Your task to perform on an android device: stop showing notifications on the lock screen Image 0: 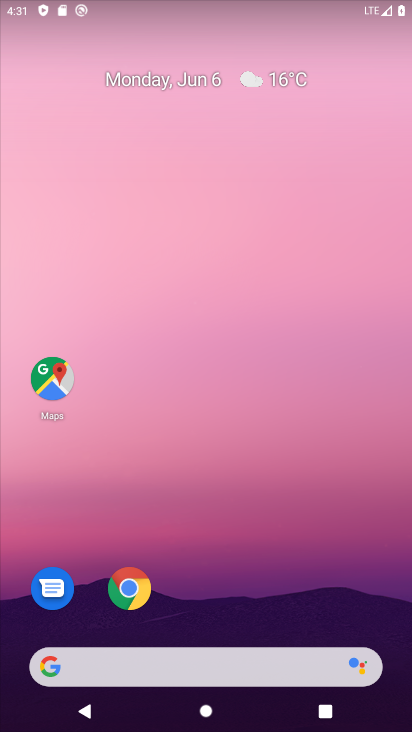
Step 0: drag from (256, 134) to (163, 209)
Your task to perform on an android device: stop showing notifications on the lock screen Image 1: 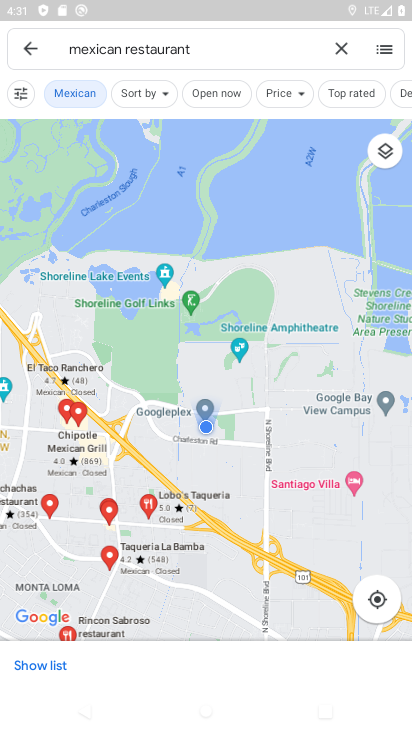
Step 1: press back button
Your task to perform on an android device: stop showing notifications on the lock screen Image 2: 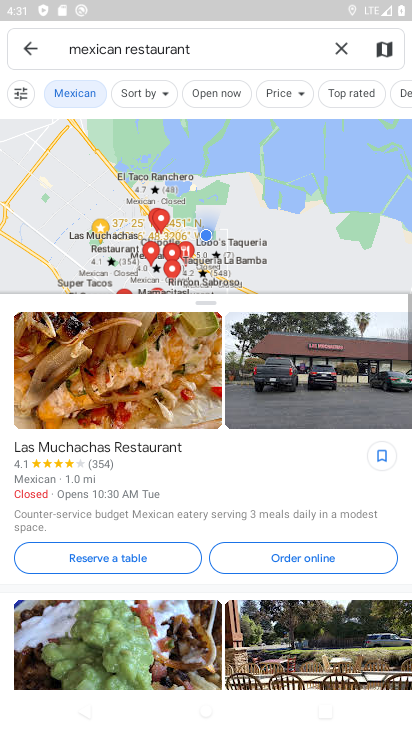
Step 2: click (33, 54)
Your task to perform on an android device: stop showing notifications on the lock screen Image 3: 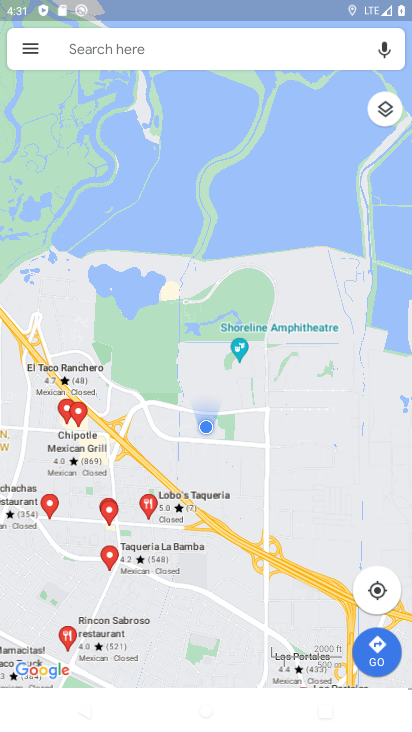
Step 3: press home button
Your task to perform on an android device: stop showing notifications on the lock screen Image 4: 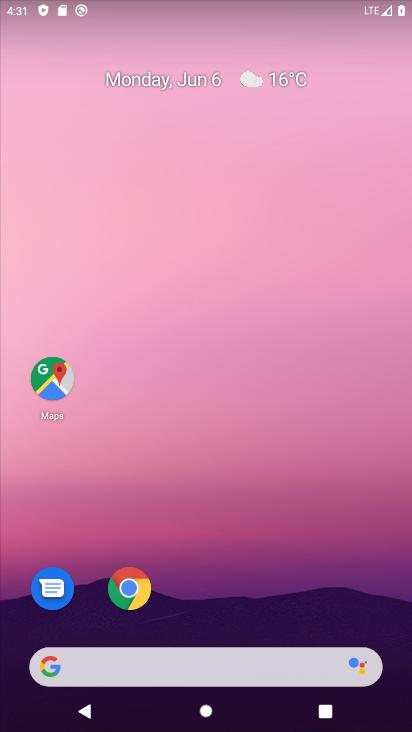
Step 4: drag from (289, 702) to (213, 142)
Your task to perform on an android device: stop showing notifications on the lock screen Image 5: 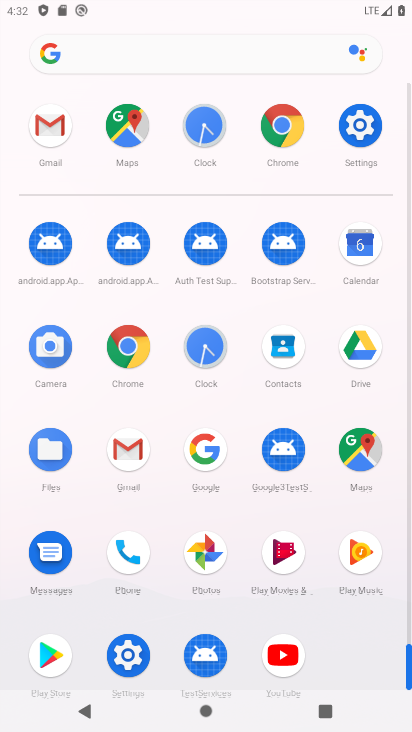
Step 5: click (362, 138)
Your task to perform on an android device: stop showing notifications on the lock screen Image 6: 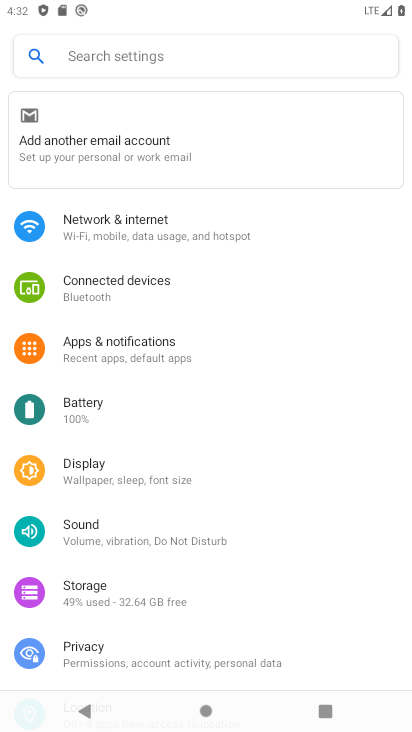
Step 6: click (99, 329)
Your task to perform on an android device: stop showing notifications on the lock screen Image 7: 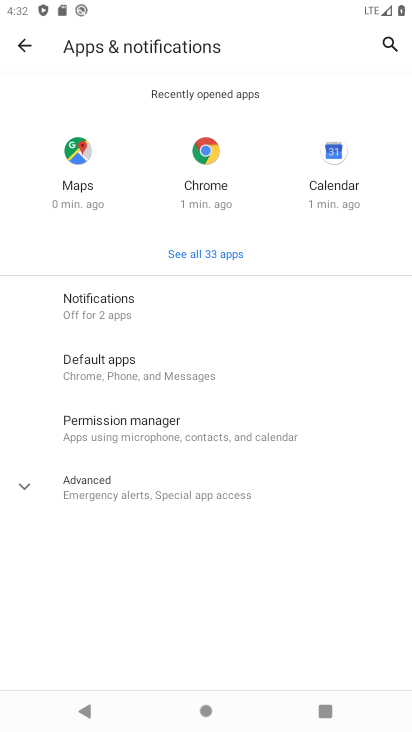
Step 7: click (104, 303)
Your task to perform on an android device: stop showing notifications on the lock screen Image 8: 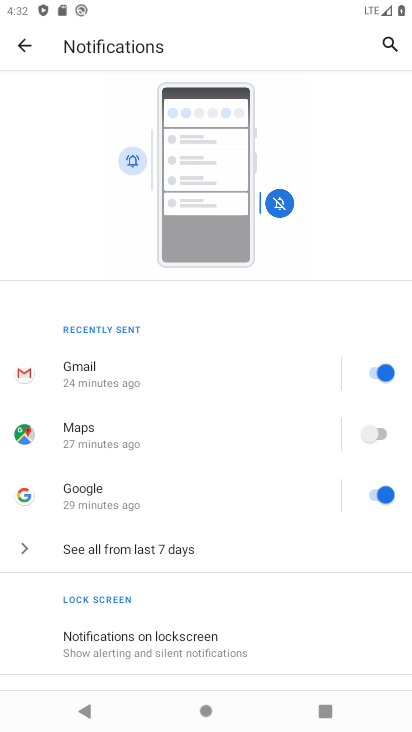
Step 8: click (141, 645)
Your task to perform on an android device: stop showing notifications on the lock screen Image 9: 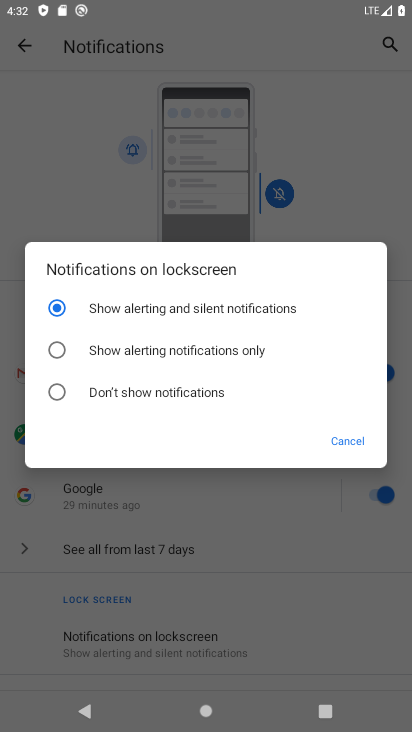
Step 9: click (362, 446)
Your task to perform on an android device: stop showing notifications on the lock screen Image 10: 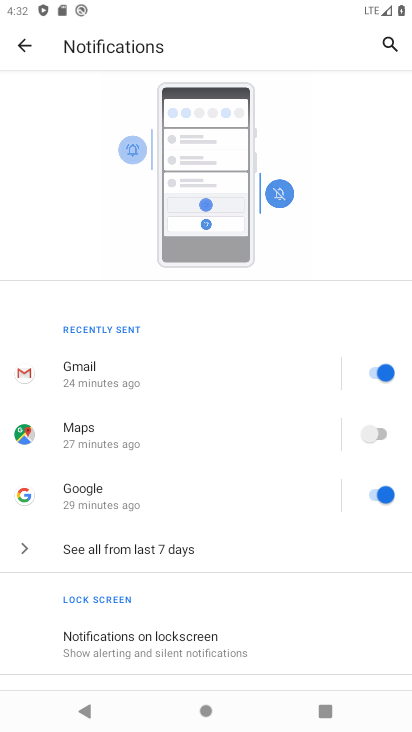
Step 10: click (122, 625)
Your task to perform on an android device: stop showing notifications on the lock screen Image 11: 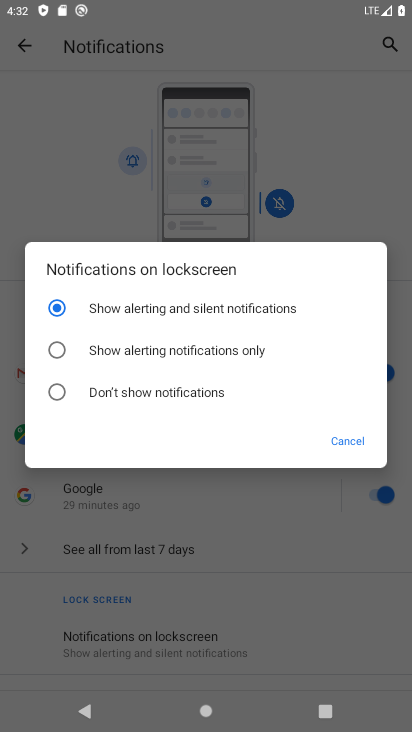
Step 11: click (53, 394)
Your task to perform on an android device: stop showing notifications on the lock screen Image 12: 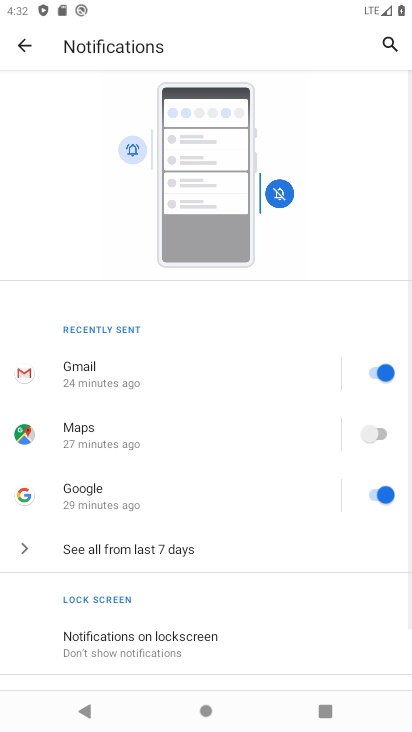
Step 12: task complete